Your task to perform on an android device: Open the map Image 0: 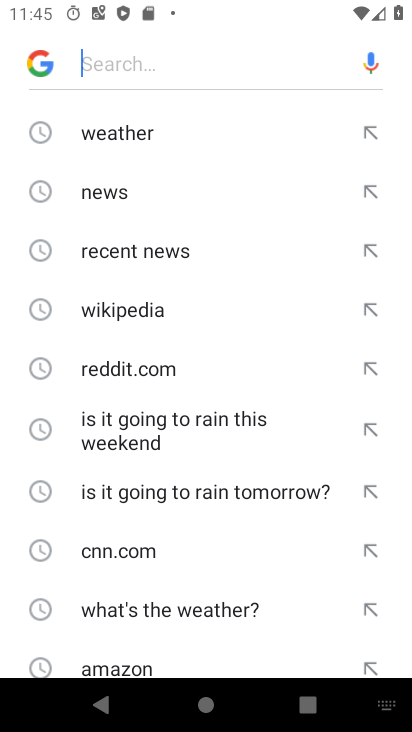
Step 0: press home button
Your task to perform on an android device: Open the map Image 1: 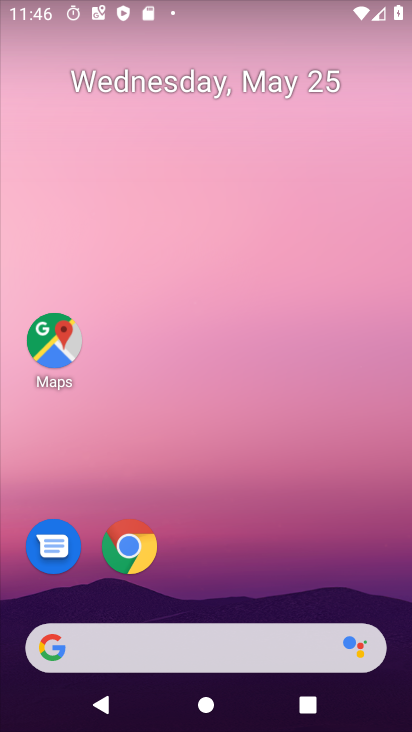
Step 1: click (60, 338)
Your task to perform on an android device: Open the map Image 2: 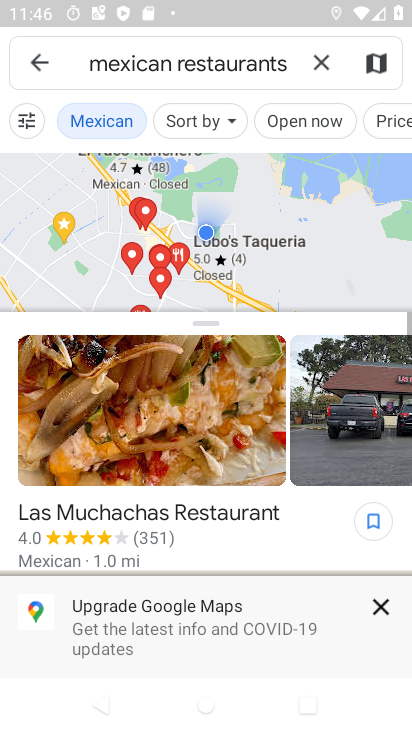
Step 2: click (41, 66)
Your task to perform on an android device: Open the map Image 3: 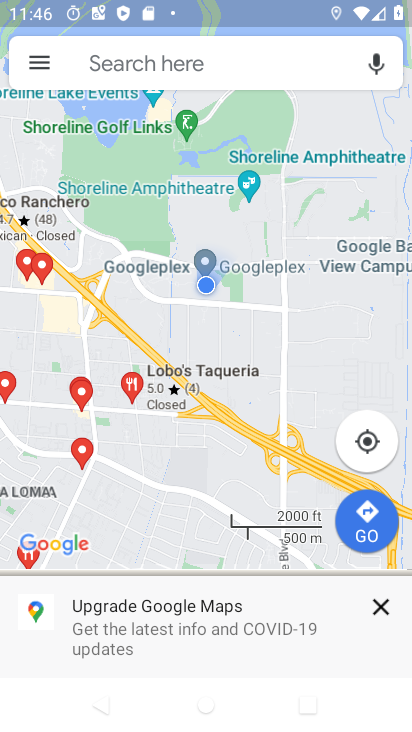
Step 3: task complete